Your task to perform on an android device: turn off priority inbox in the gmail app Image 0: 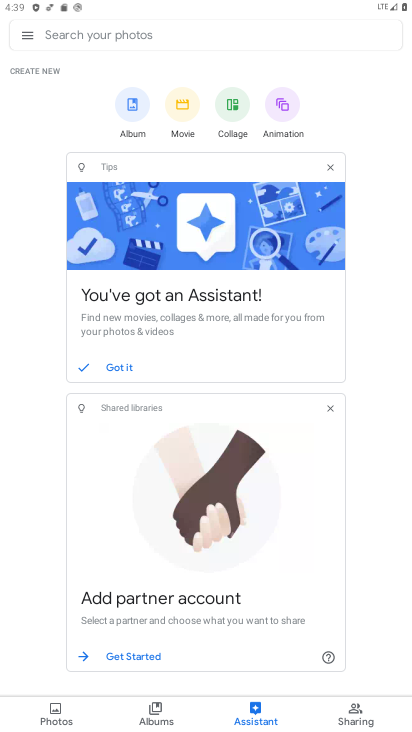
Step 0: press home button
Your task to perform on an android device: turn off priority inbox in the gmail app Image 1: 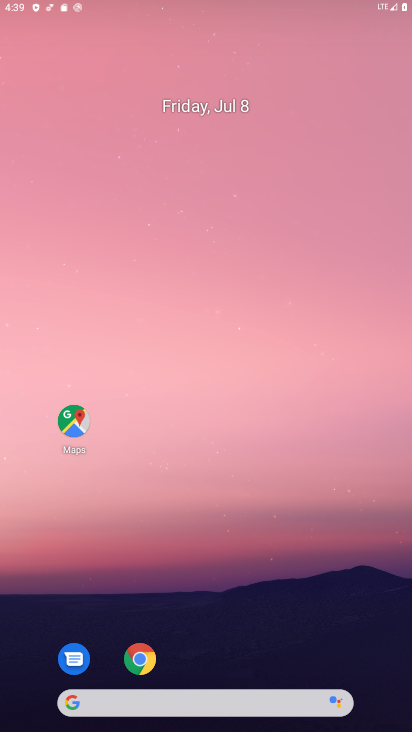
Step 1: drag from (234, 538) to (273, 24)
Your task to perform on an android device: turn off priority inbox in the gmail app Image 2: 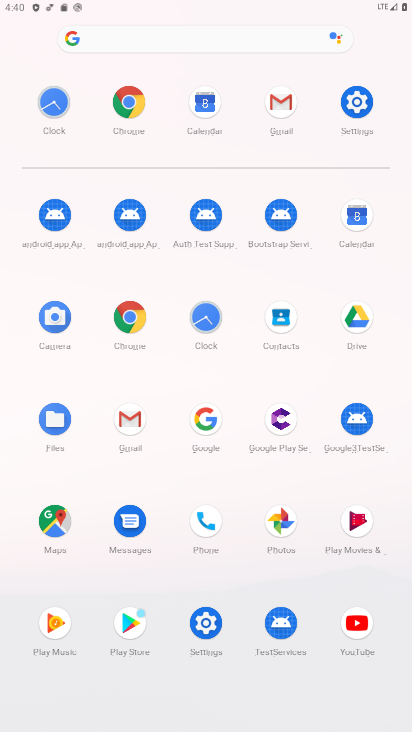
Step 2: click (288, 101)
Your task to perform on an android device: turn off priority inbox in the gmail app Image 3: 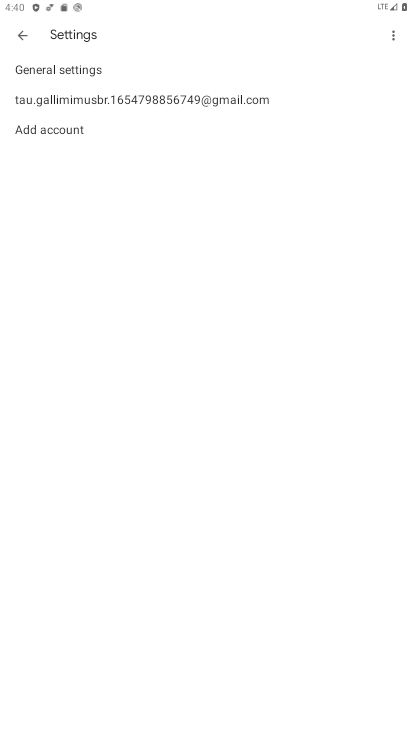
Step 3: click (27, 37)
Your task to perform on an android device: turn off priority inbox in the gmail app Image 4: 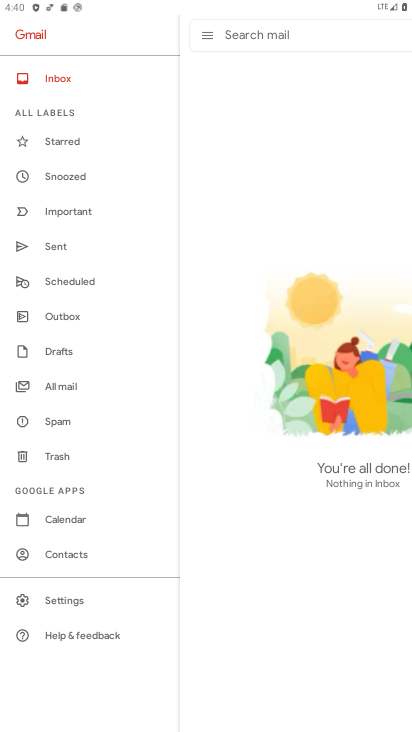
Step 4: click (69, 596)
Your task to perform on an android device: turn off priority inbox in the gmail app Image 5: 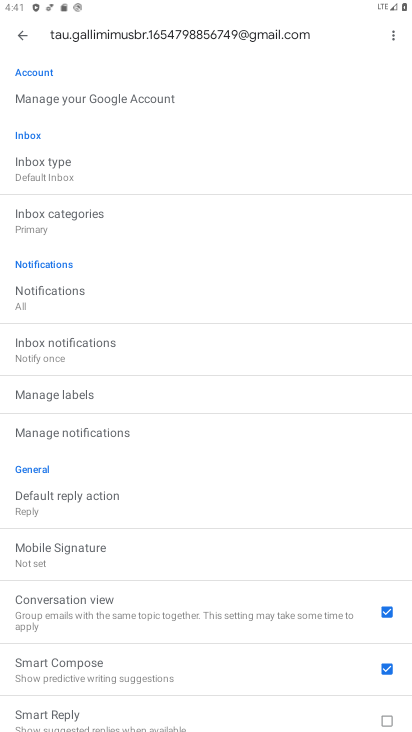
Step 5: click (47, 168)
Your task to perform on an android device: turn off priority inbox in the gmail app Image 6: 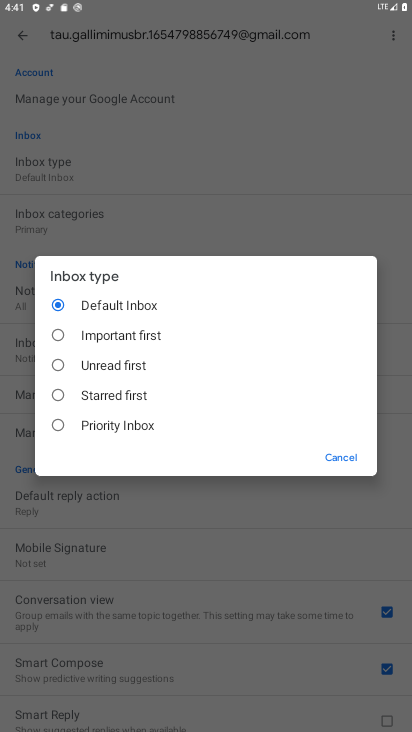
Step 6: task complete